Your task to perform on an android device: Go to notification settings Image 0: 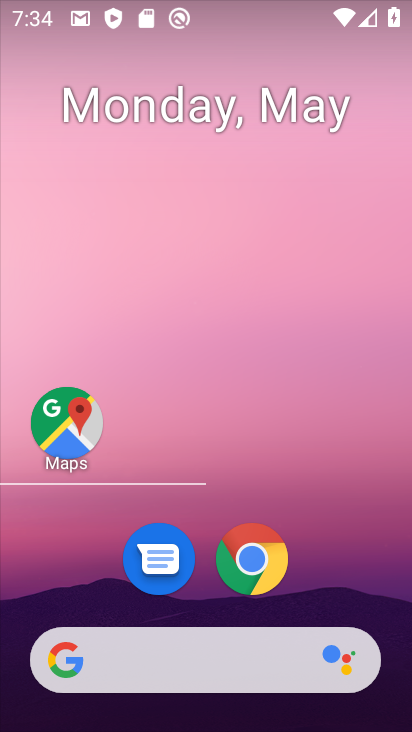
Step 0: click (238, 577)
Your task to perform on an android device: Go to notification settings Image 1: 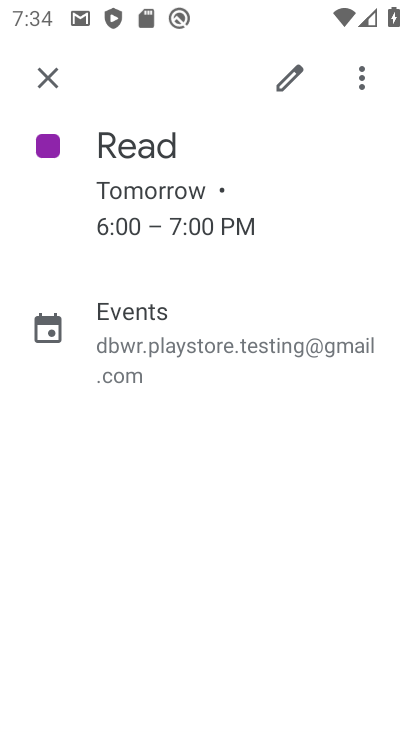
Step 1: press home button
Your task to perform on an android device: Go to notification settings Image 2: 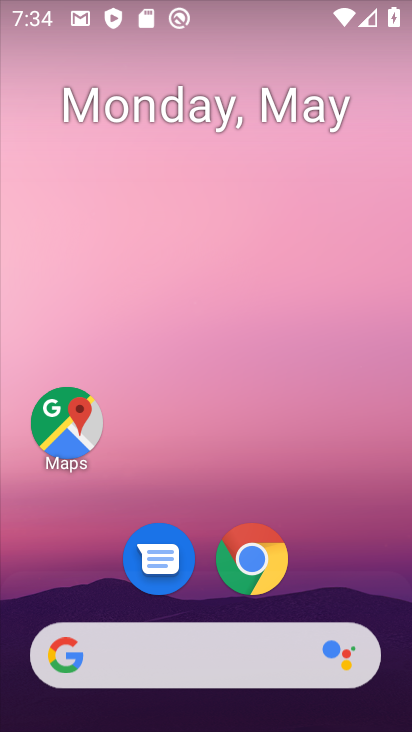
Step 2: drag from (123, 704) to (109, 89)
Your task to perform on an android device: Go to notification settings Image 3: 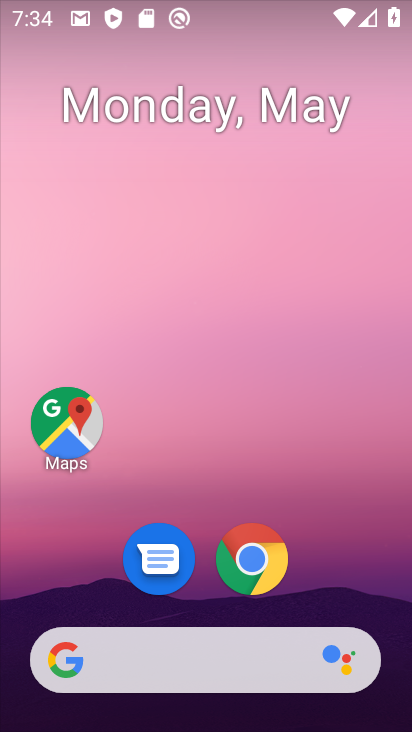
Step 3: drag from (153, 725) to (103, 131)
Your task to perform on an android device: Go to notification settings Image 4: 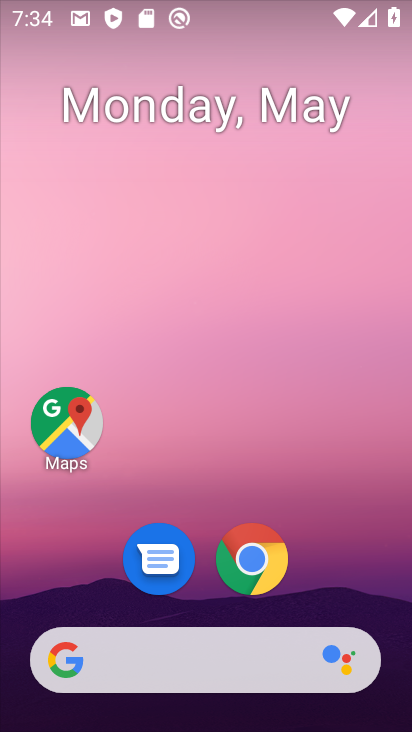
Step 4: press home button
Your task to perform on an android device: Go to notification settings Image 5: 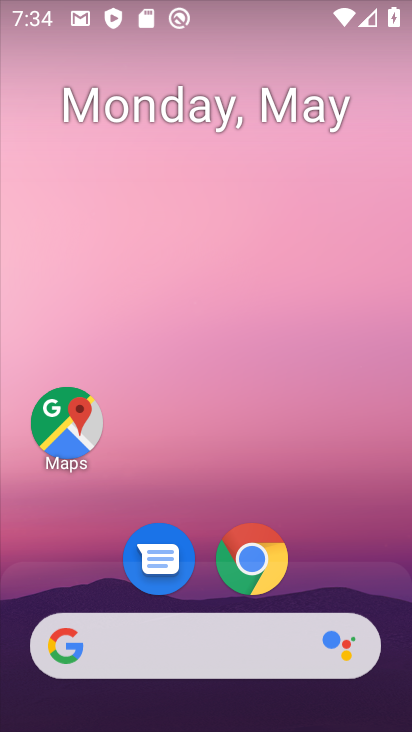
Step 5: drag from (160, 727) to (127, 51)
Your task to perform on an android device: Go to notification settings Image 6: 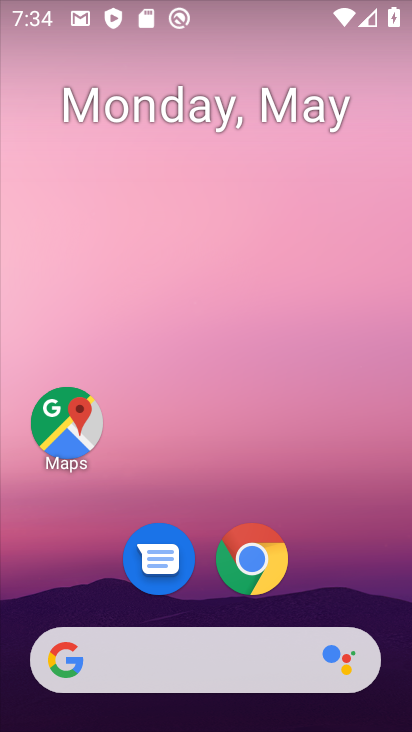
Step 6: drag from (141, 727) to (130, 116)
Your task to perform on an android device: Go to notification settings Image 7: 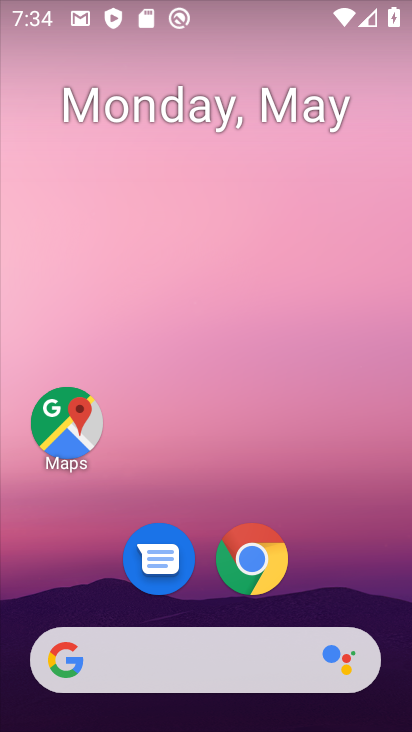
Step 7: drag from (236, 20) to (214, 555)
Your task to perform on an android device: Go to notification settings Image 8: 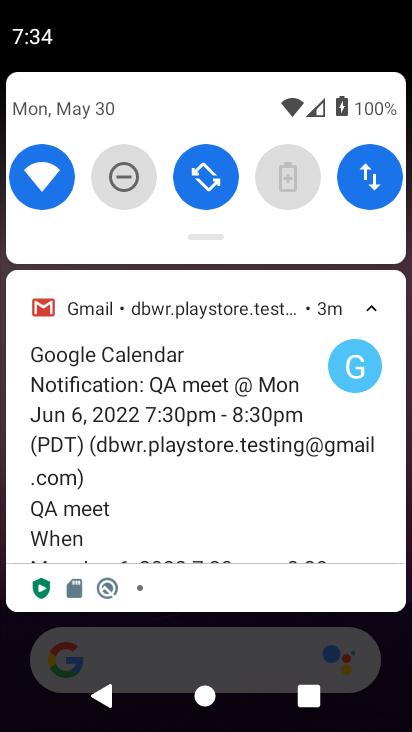
Step 8: drag from (186, 231) to (129, 515)
Your task to perform on an android device: Go to notification settings Image 9: 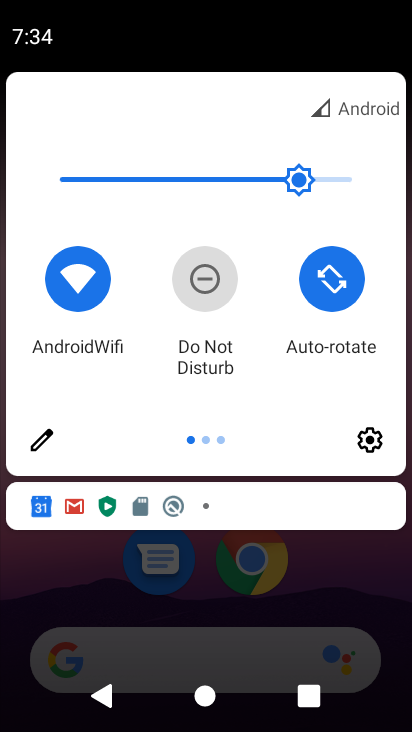
Step 9: click (369, 437)
Your task to perform on an android device: Go to notification settings Image 10: 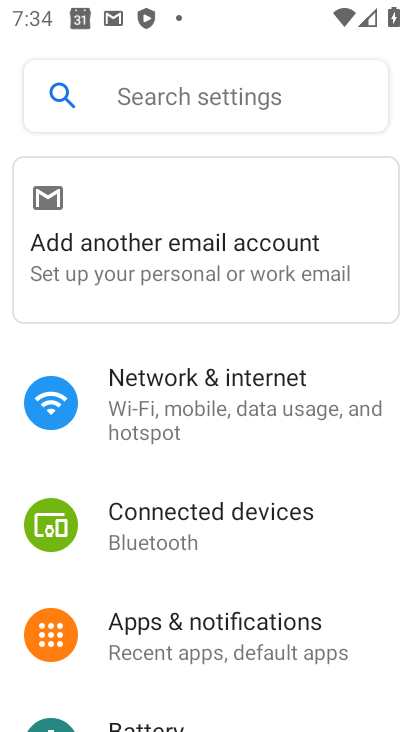
Step 10: click (267, 633)
Your task to perform on an android device: Go to notification settings Image 11: 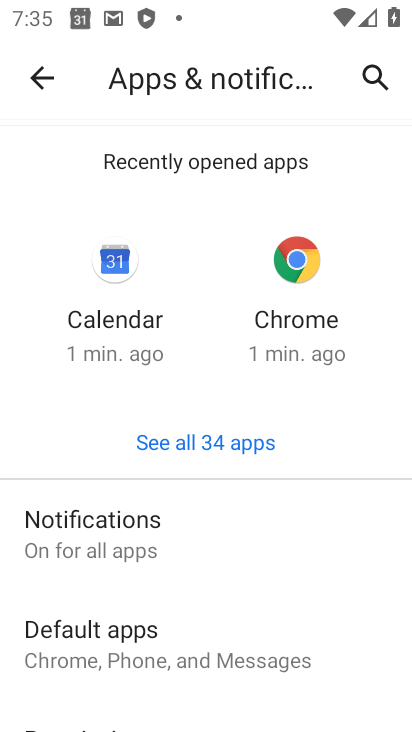
Step 11: task complete